Your task to perform on an android device: change the clock display to show seconds Image 0: 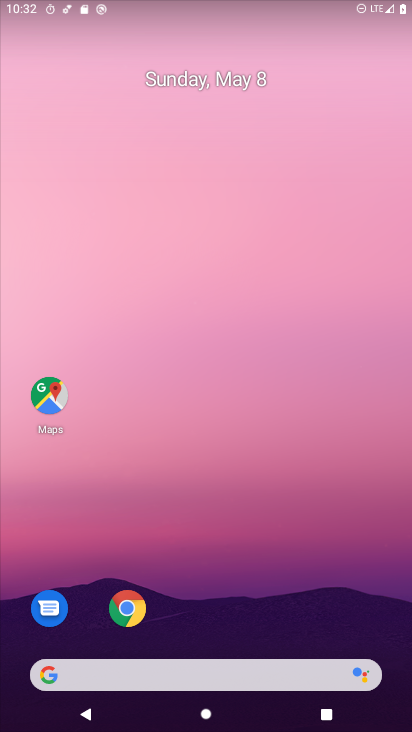
Step 0: drag from (238, 610) to (251, 206)
Your task to perform on an android device: change the clock display to show seconds Image 1: 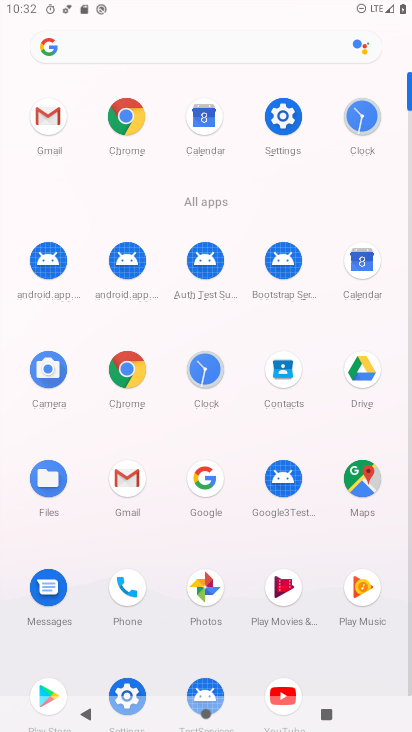
Step 1: click (210, 367)
Your task to perform on an android device: change the clock display to show seconds Image 2: 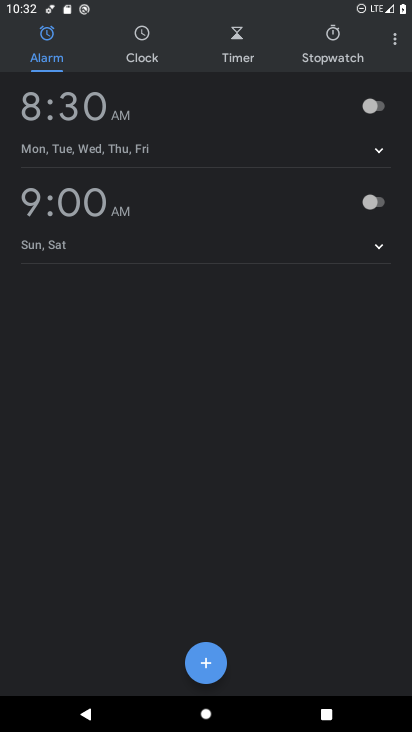
Step 2: click (393, 44)
Your task to perform on an android device: change the clock display to show seconds Image 3: 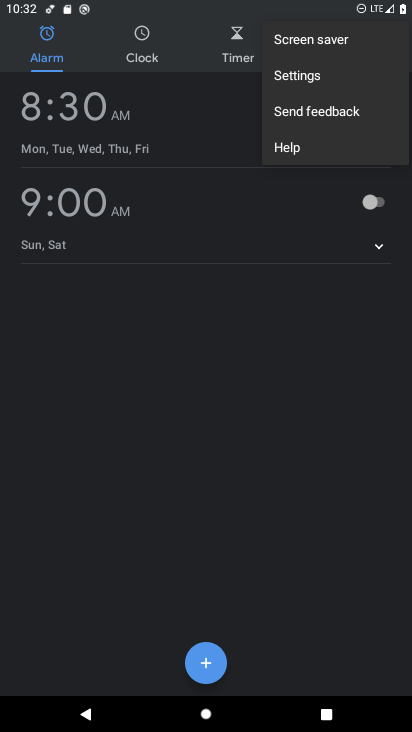
Step 3: click (331, 78)
Your task to perform on an android device: change the clock display to show seconds Image 4: 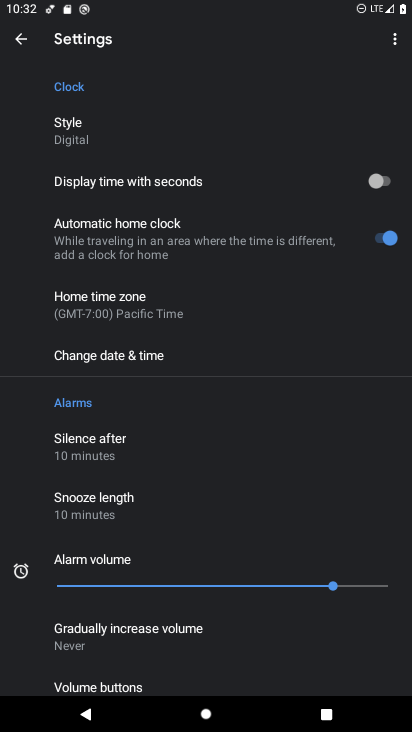
Step 4: click (378, 184)
Your task to perform on an android device: change the clock display to show seconds Image 5: 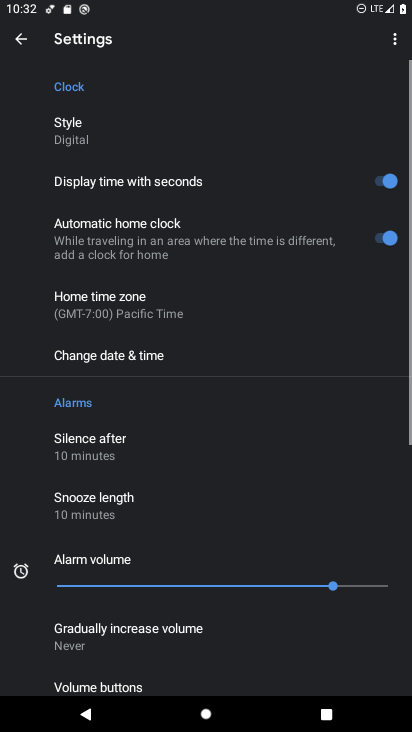
Step 5: task complete